Your task to perform on an android device: add a contact in the contacts app Image 0: 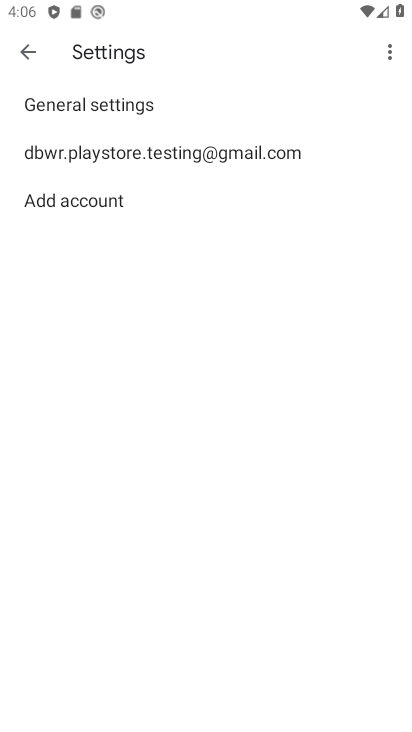
Step 0: press home button
Your task to perform on an android device: add a contact in the contacts app Image 1: 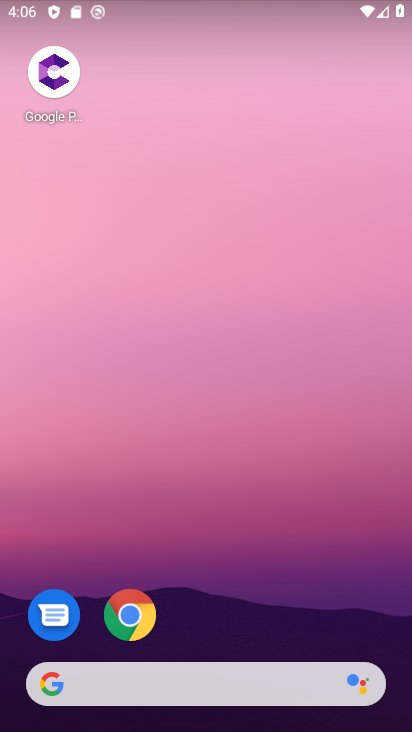
Step 1: click (245, 200)
Your task to perform on an android device: add a contact in the contacts app Image 2: 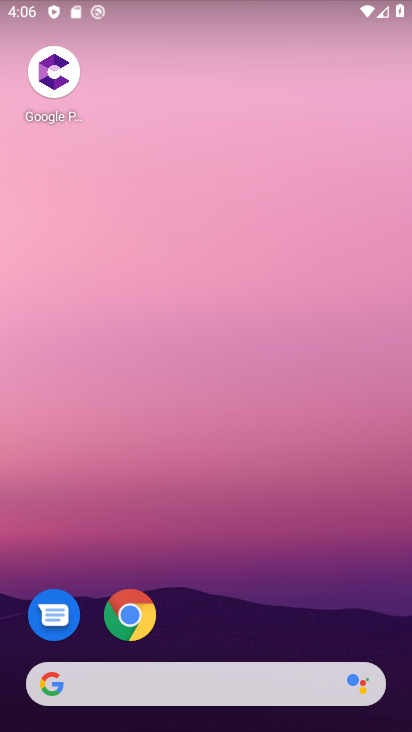
Step 2: drag from (238, 628) to (265, 286)
Your task to perform on an android device: add a contact in the contacts app Image 3: 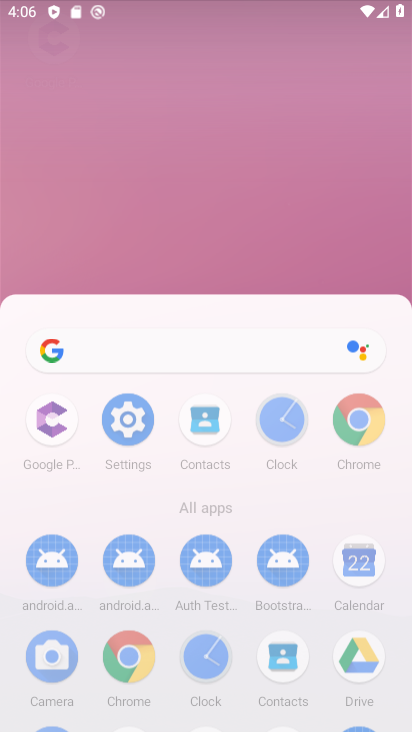
Step 3: drag from (191, 622) to (213, 250)
Your task to perform on an android device: add a contact in the contacts app Image 4: 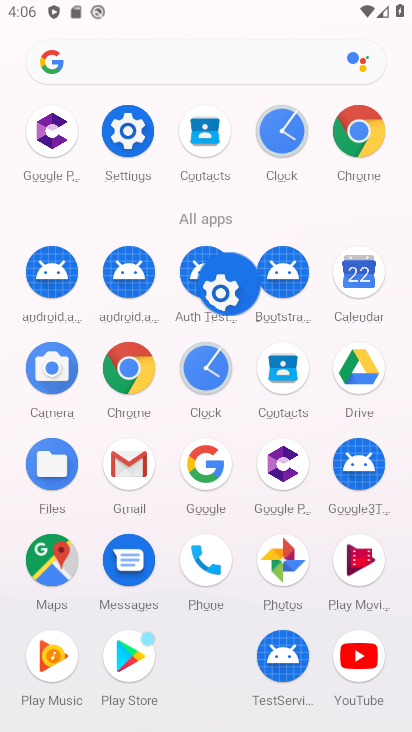
Step 4: click (348, 271)
Your task to perform on an android device: add a contact in the contacts app Image 5: 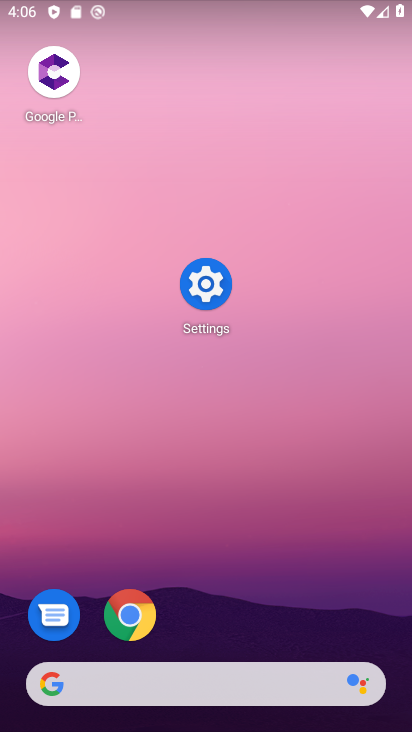
Step 5: drag from (208, 595) to (277, 89)
Your task to perform on an android device: add a contact in the contacts app Image 6: 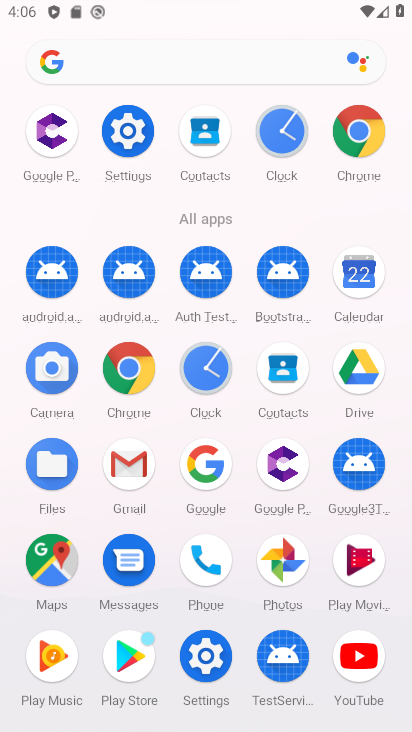
Step 6: click (284, 374)
Your task to perform on an android device: add a contact in the contacts app Image 7: 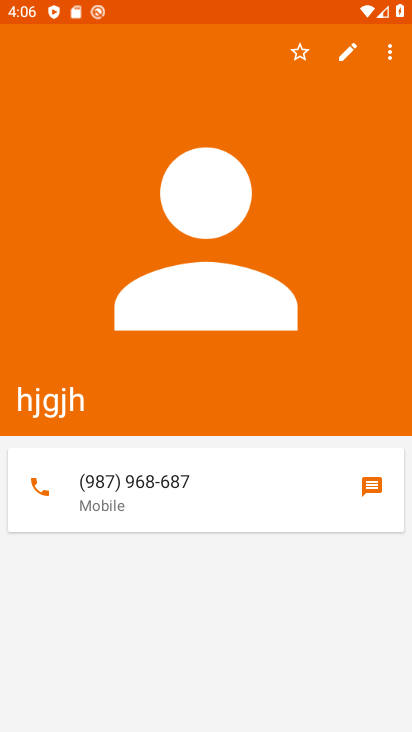
Step 7: task complete